Your task to perform on an android device: Show me popular games on the Play Store Image 0: 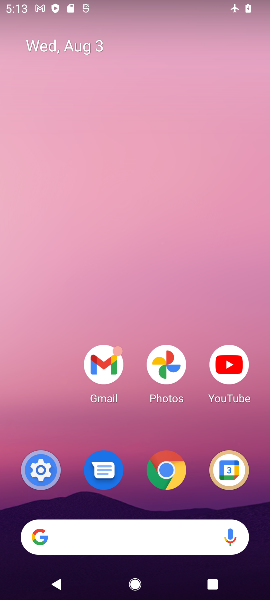
Step 0: drag from (55, 417) to (80, 17)
Your task to perform on an android device: Show me popular games on the Play Store Image 1: 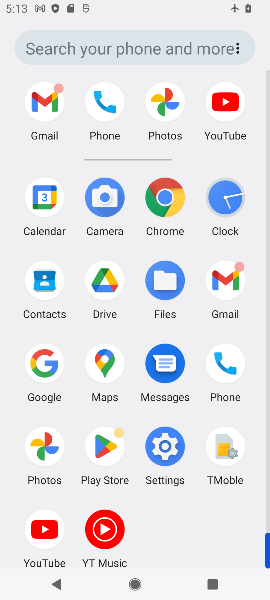
Step 1: click (101, 437)
Your task to perform on an android device: Show me popular games on the Play Store Image 2: 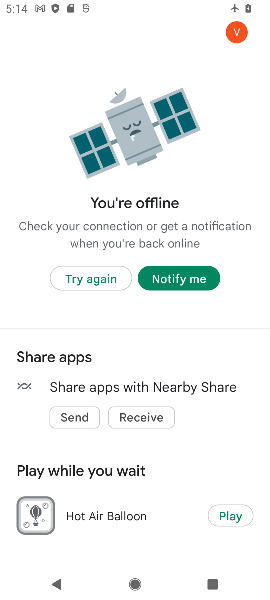
Step 2: task complete